Your task to perform on an android device: delete a single message in the gmail app Image 0: 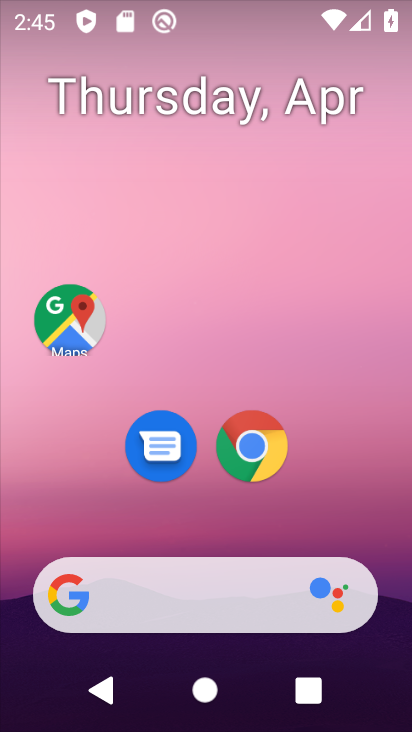
Step 0: drag from (305, 617) to (285, 244)
Your task to perform on an android device: delete a single message in the gmail app Image 1: 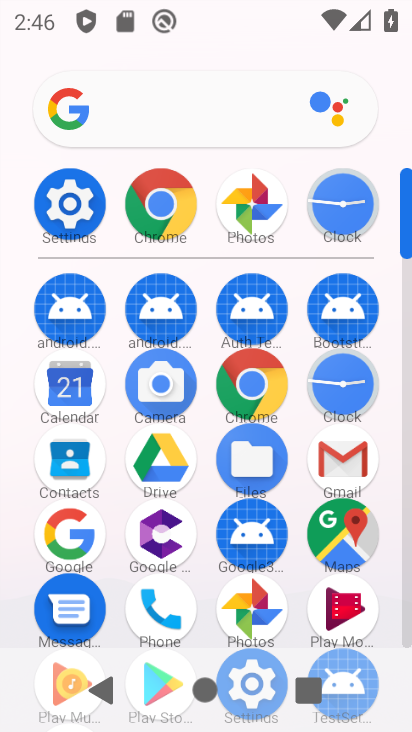
Step 1: click (333, 434)
Your task to perform on an android device: delete a single message in the gmail app Image 2: 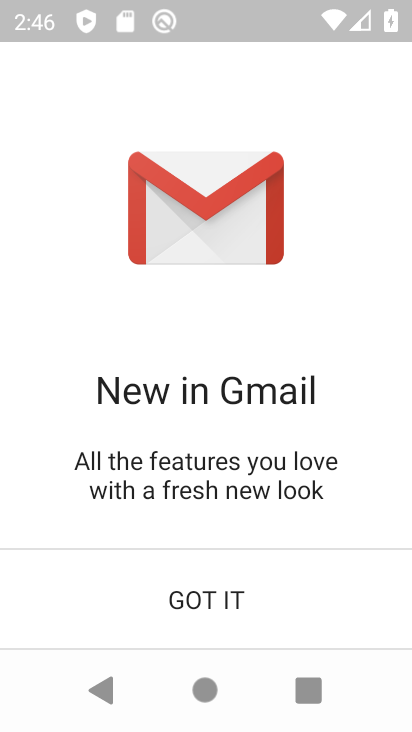
Step 2: click (216, 589)
Your task to perform on an android device: delete a single message in the gmail app Image 3: 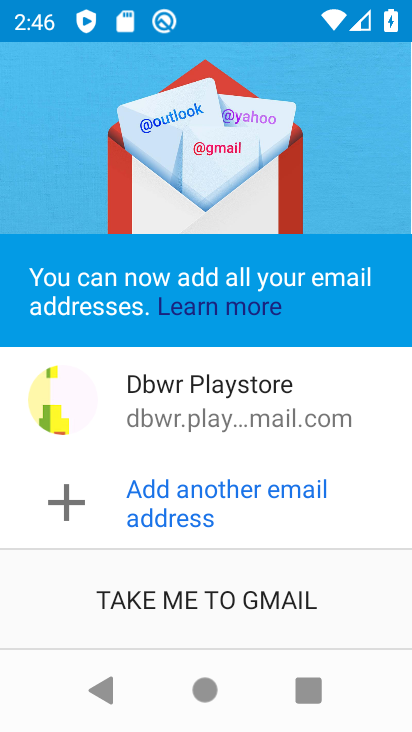
Step 3: click (185, 589)
Your task to perform on an android device: delete a single message in the gmail app Image 4: 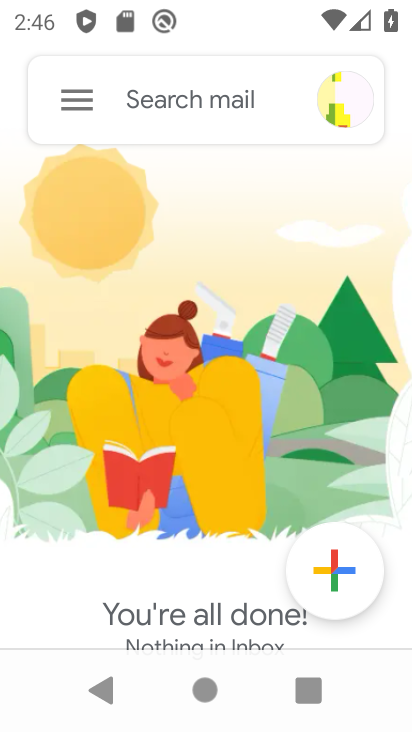
Step 4: click (79, 102)
Your task to perform on an android device: delete a single message in the gmail app Image 5: 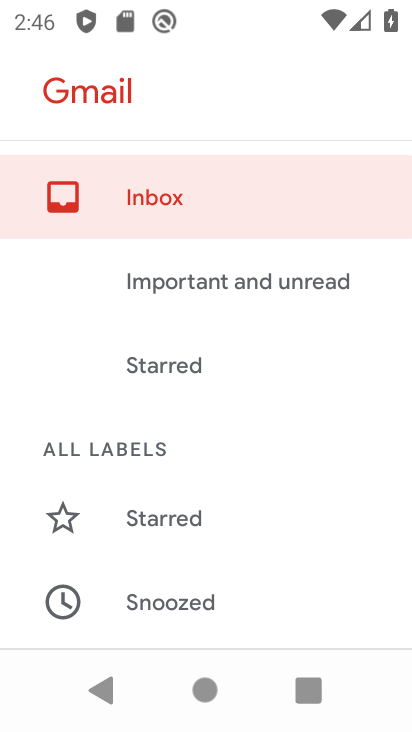
Step 5: drag from (234, 478) to (256, 119)
Your task to perform on an android device: delete a single message in the gmail app Image 6: 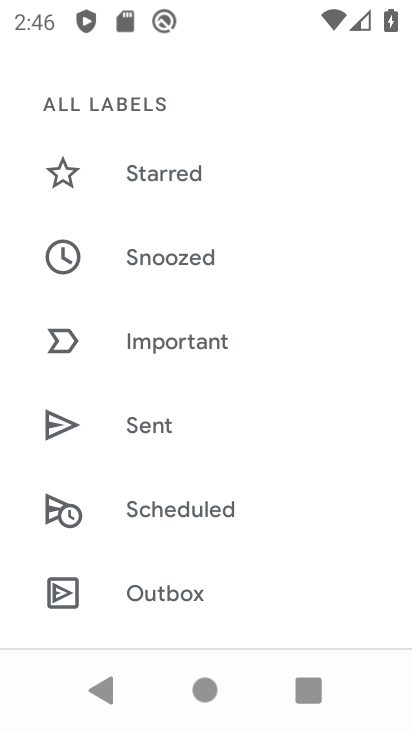
Step 6: drag from (178, 465) to (216, 258)
Your task to perform on an android device: delete a single message in the gmail app Image 7: 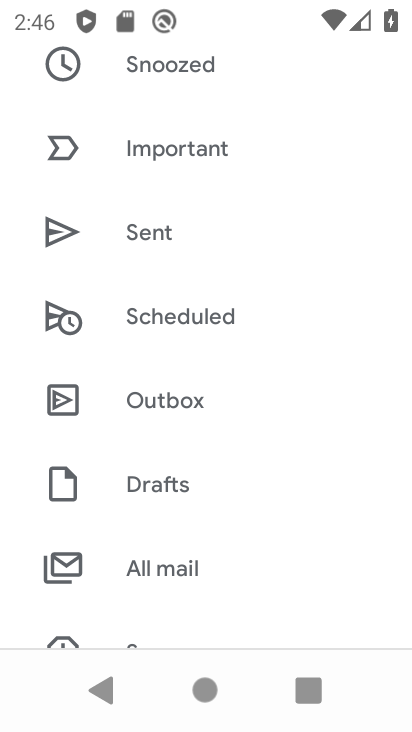
Step 7: click (140, 561)
Your task to perform on an android device: delete a single message in the gmail app Image 8: 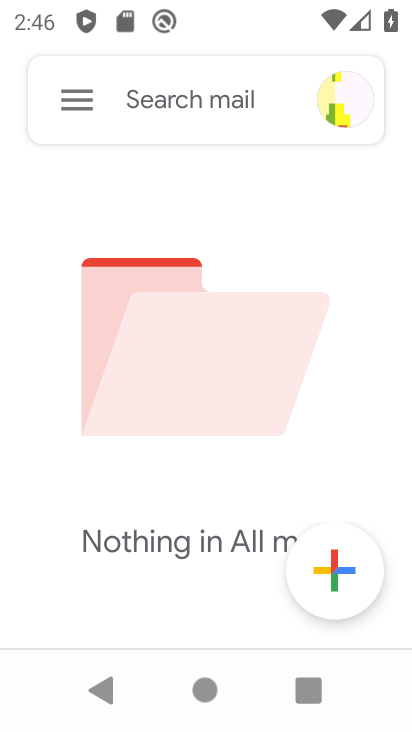
Step 8: task complete